Your task to perform on an android device: turn notification dots on Image 0: 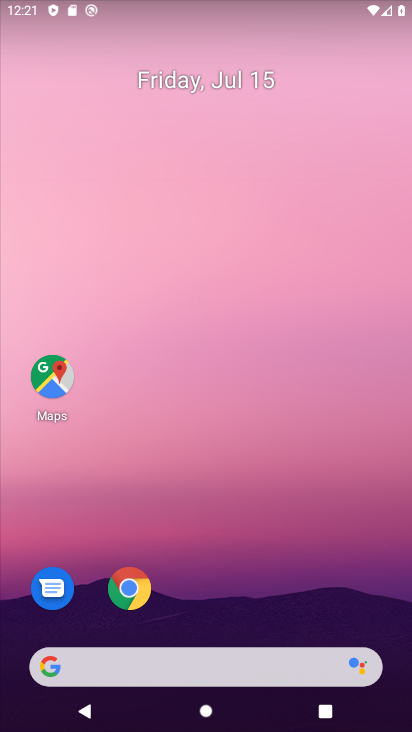
Step 0: drag from (265, 626) to (266, 266)
Your task to perform on an android device: turn notification dots on Image 1: 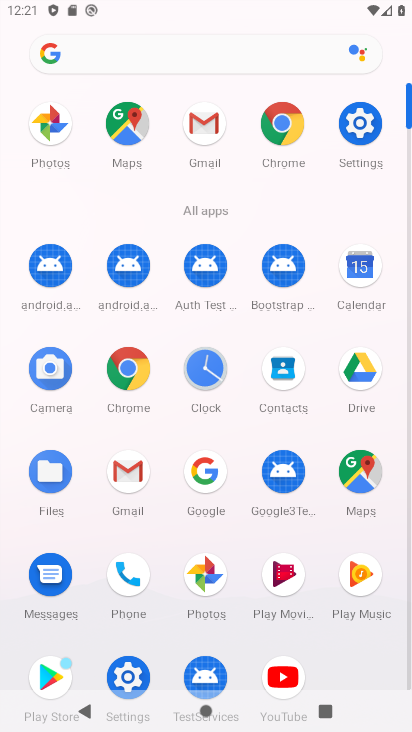
Step 1: click (347, 137)
Your task to perform on an android device: turn notification dots on Image 2: 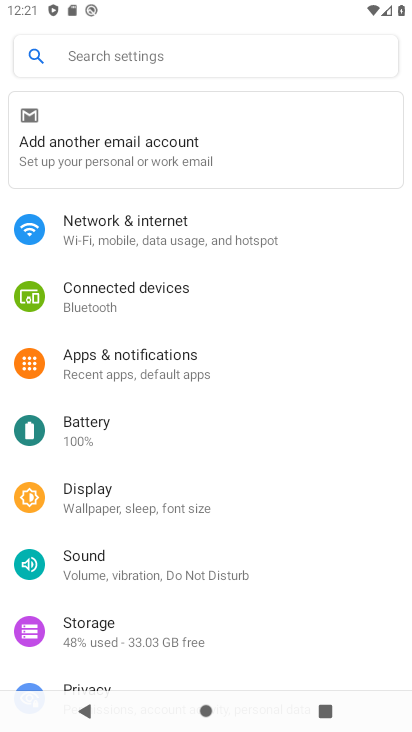
Step 2: click (155, 370)
Your task to perform on an android device: turn notification dots on Image 3: 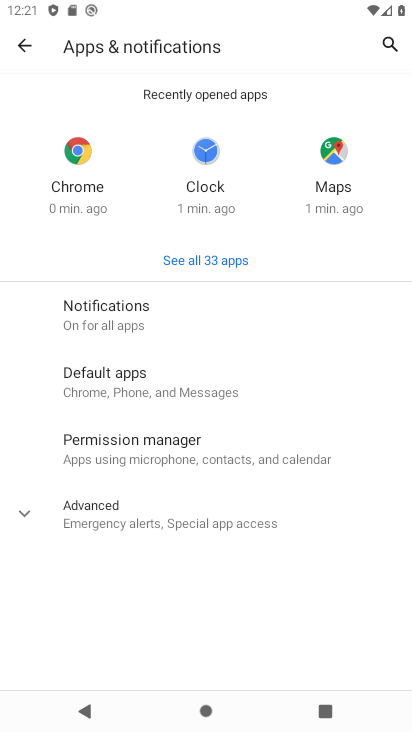
Step 3: click (69, 300)
Your task to perform on an android device: turn notification dots on Image 4: 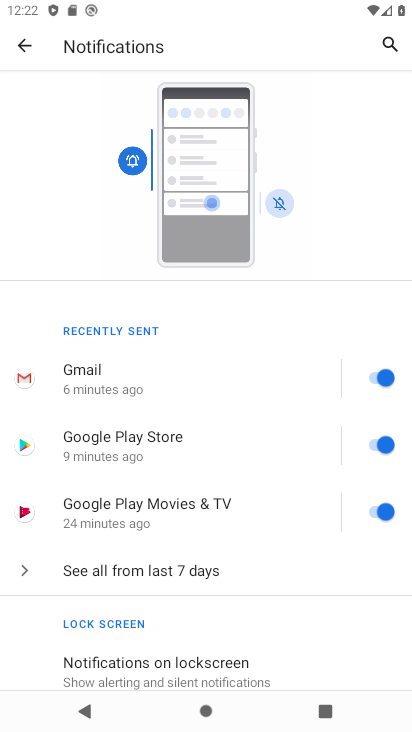
Step 4: drag from (158, 663) to (163, 233)
Your task to perform on an android device: turn notification dots on Image 5: 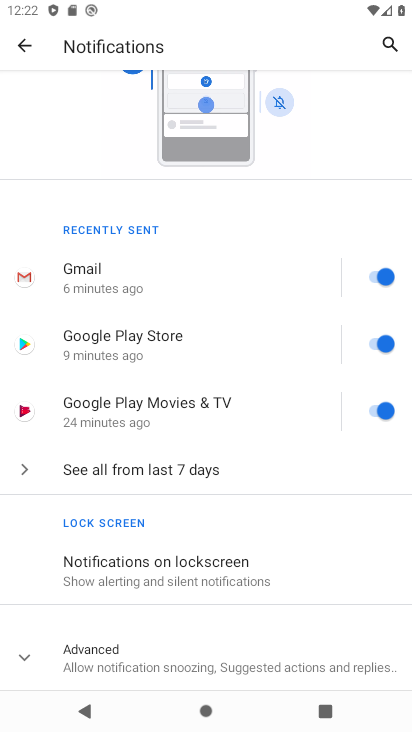
Step 5: click (269, 645)
Your task to perform on an android device: turn notification dots on Image 6: 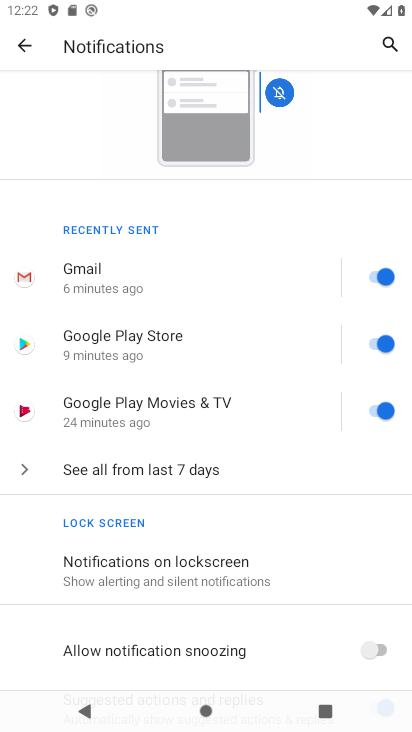
Step 6: task complete